Your task to perform on an android device: delete a single message in the gmail app Image 0: 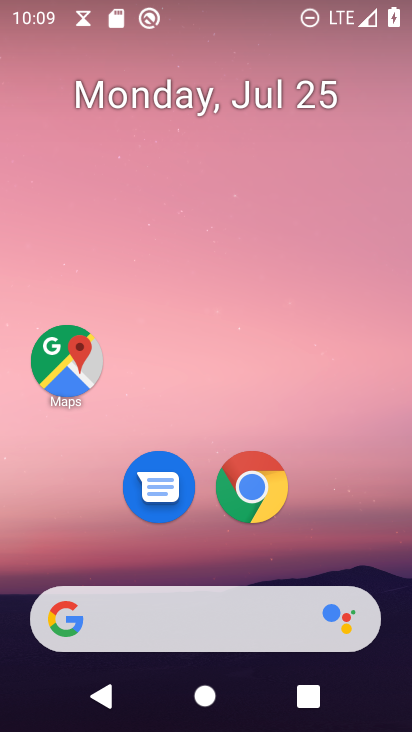
Step 0: drag from (261, 212) to (322, 15)
Your task to perform on an android device: delete a single message in the gmail app Image 1: 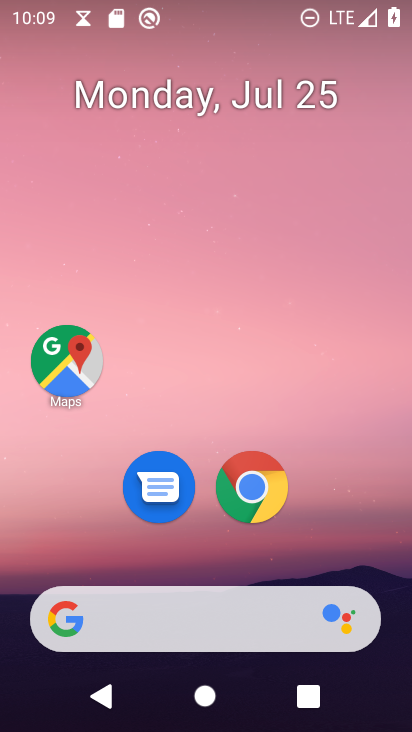
Step 1: drag from (183, 567) to (294, 6)
Your task to perform on an android device: delete a single message in the gmail app Image 2: 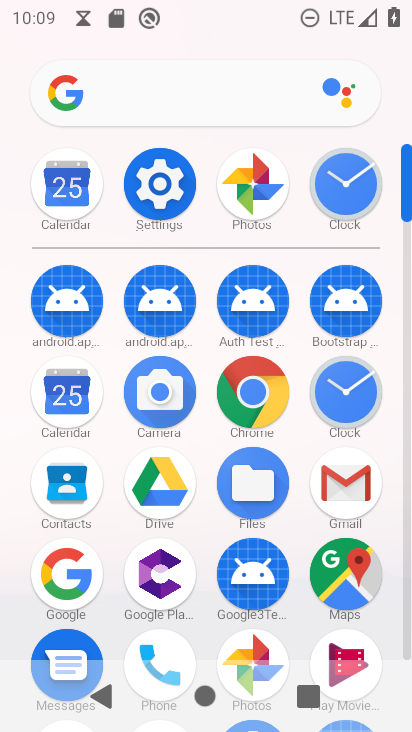
Step 2: click (352, 474)
Your task to perform on an android device: delete a single message in the gmail app Image 3: 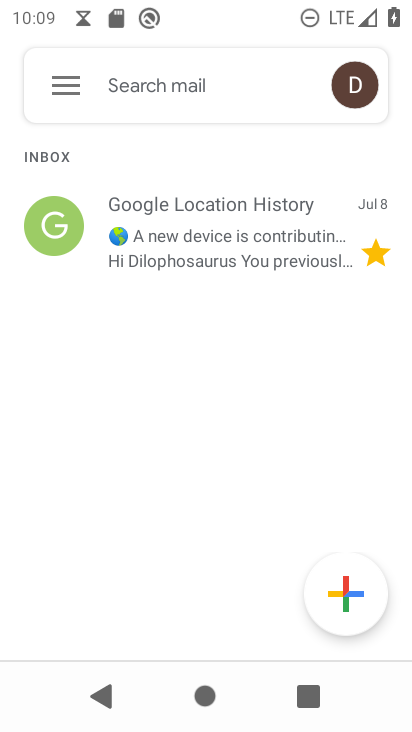
Step 3: click (175, 218)
Your task to perform on an android device: delete a single message in the gmail app Image 4: 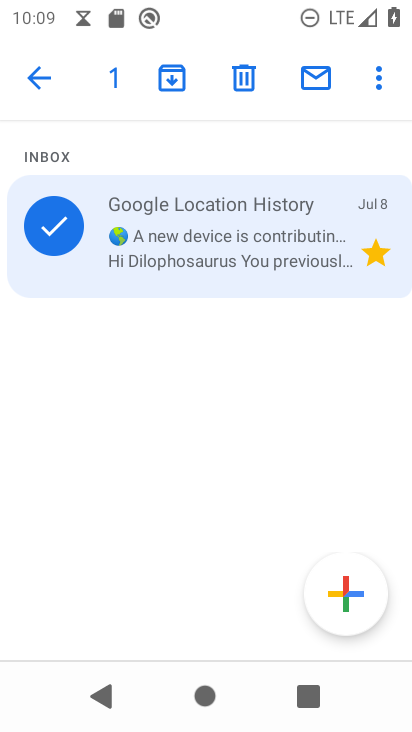
Step 4: click (249, 78)
Your task to perform on an android device: delete a single message in the gmail app Image 5: 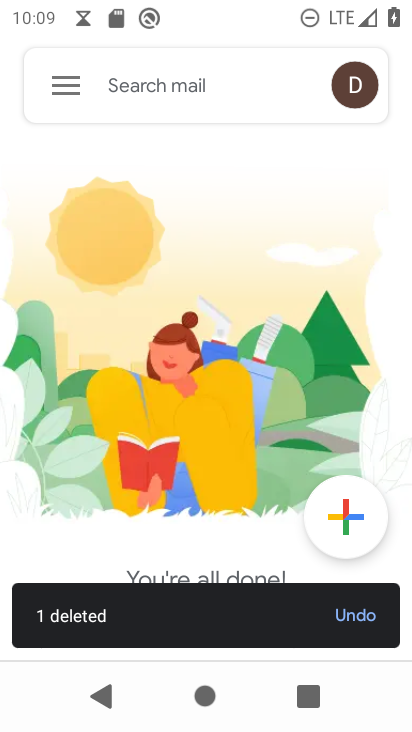
Step 5: task complete